Your task to perform on an android device: What's the weather going to be tomorrow? Image 0: 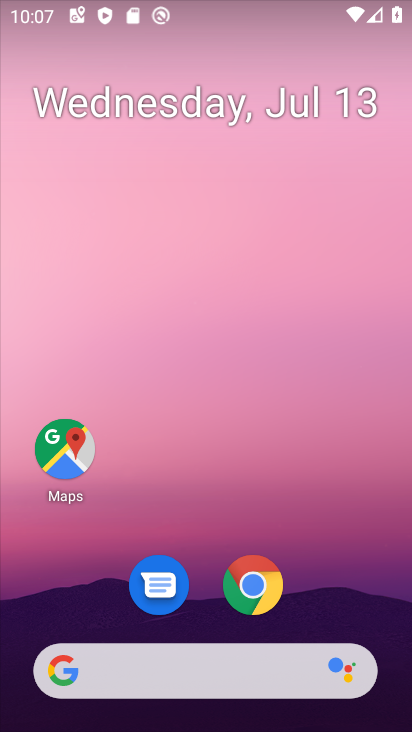
Step 0: click (183, 677)
Your task to perform on an android device: What's the weather going to be tomorrow? Image 1: 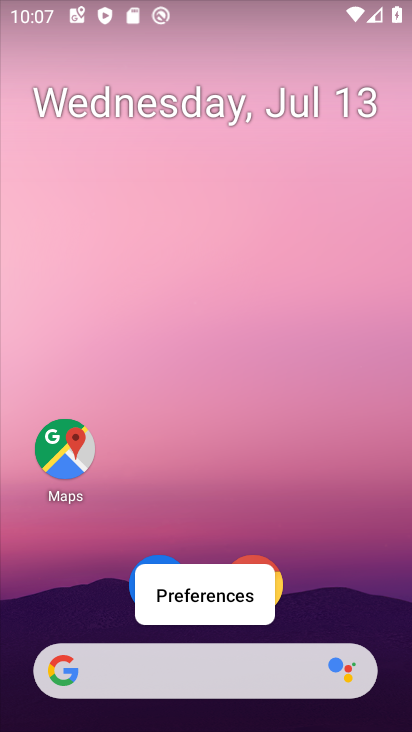
Step 1: click (183, 674)
Your task to perform on an android device: What's the weather going to be tomorrow? Image 2: 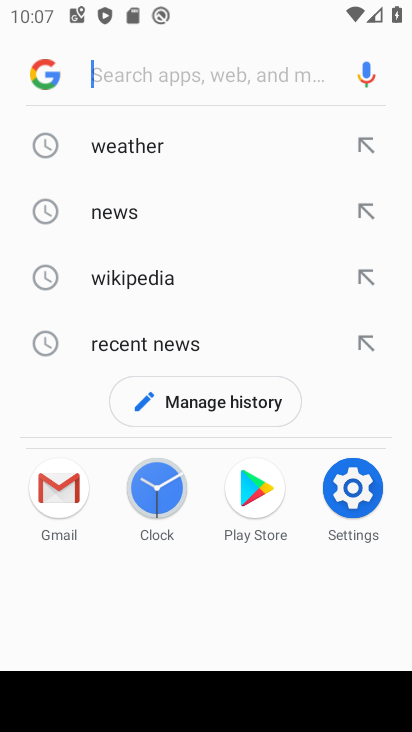
Step 2: click (121, 138)
Your task to perform on an android device: What's the weather going to be tomorrow? Image 3: 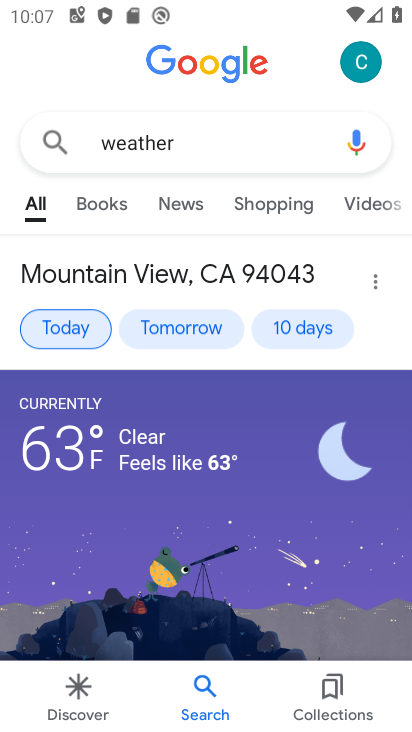
Step 3: click (75, 320)
Your task to perform on an android device: What's the weather going to be tomorrow? Image 4: 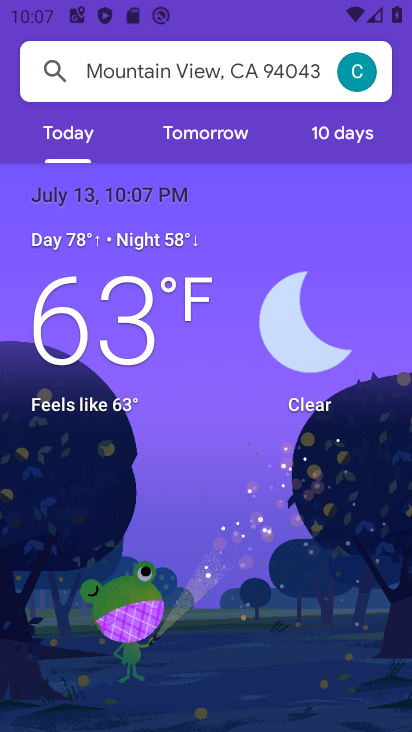
Step 4: click (203, 129)
Your task to perform on an android device: What's the weather going to be tomorrow? Image 5: 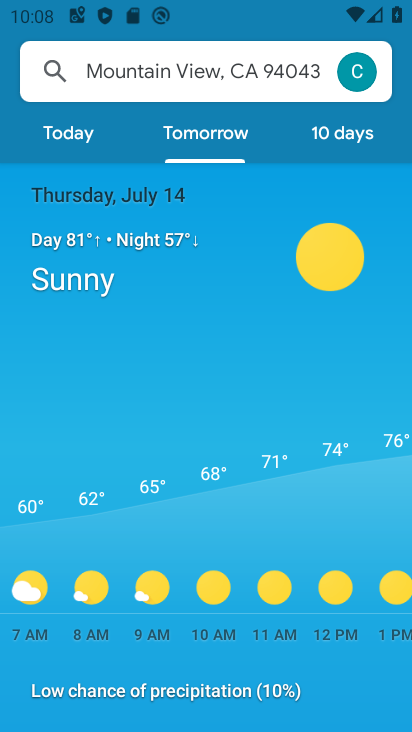
Step 5: task complete